Your task to perform on an android device: empty trash in the gmail app Image 0: 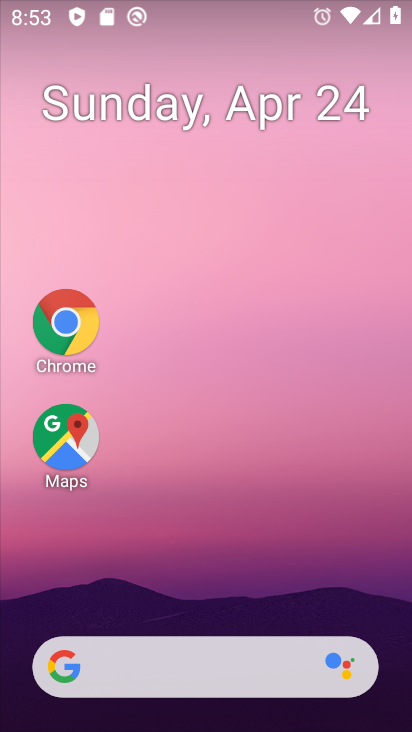
Step 0: drag from (226, 543) to (160, 44)
Your task to perform on an android device: empty trash in the gmail app Image 1: 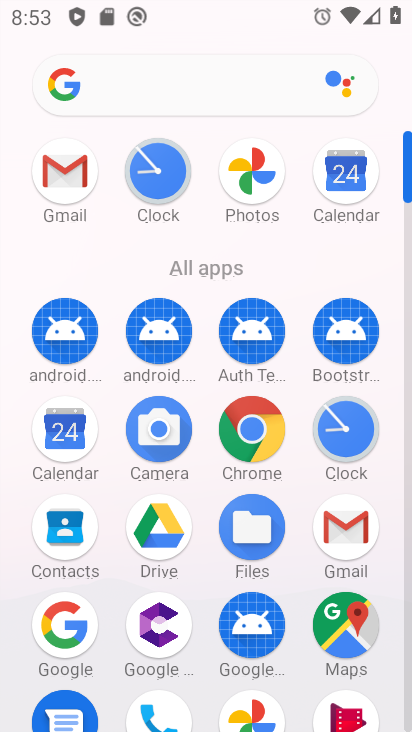
Step 1: click (340, 525)
Your task to perform on an android device: empty trash in the gmail app Image 2: 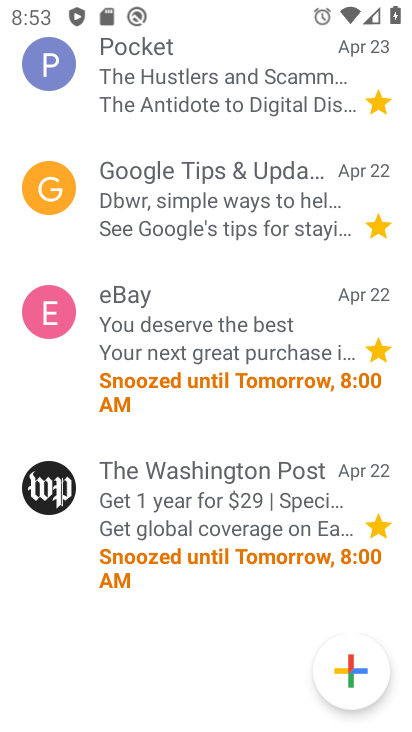
Step 2: drag from (120, 137) to (235, 685)
Your task to perform on an android device: empty trash in the gmail app Image 3: 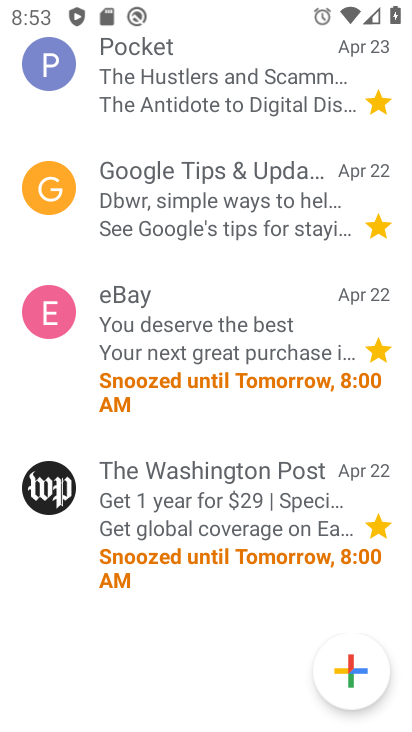
Step 3: drag from (220, 224) to (201, 576)
Your task to perform on an android device: empty trash in the gmail app Image 4: 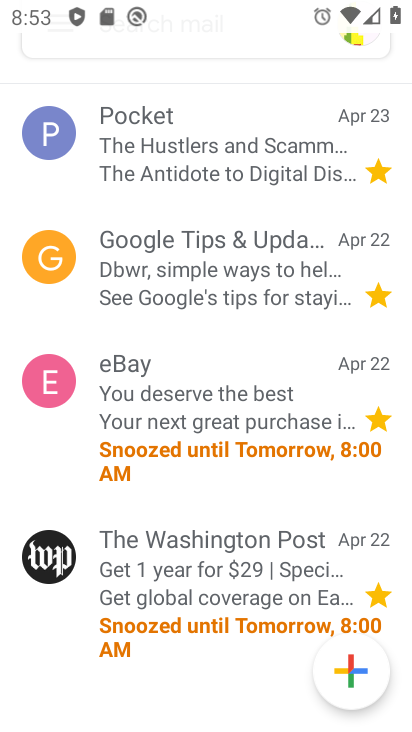
Step 4: drag from (238, 129) to (233, 314)
Your task to perform on an android device: empty trash in the gmail app Image 5: 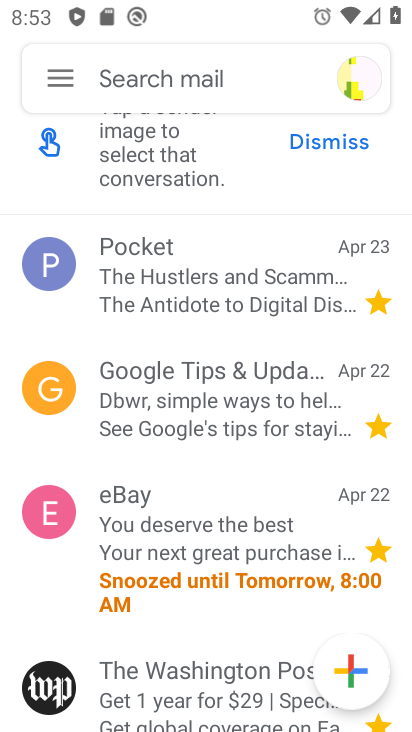
Step 5: click (53, 82)
Your task to perform on an android device: empty trash in the gmail app Image 6: 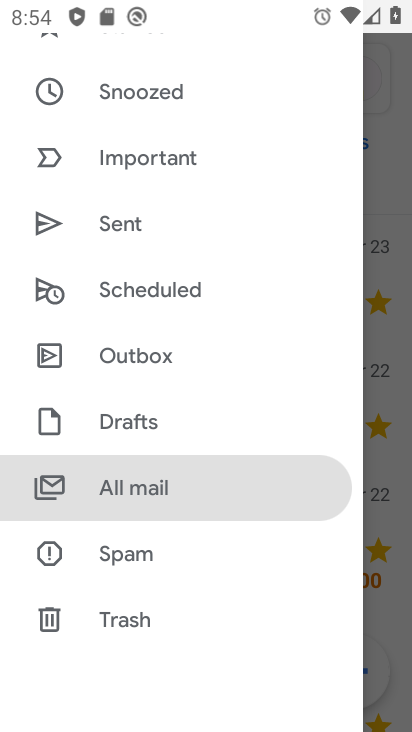
Step 6: click (115, 611)
Your task to perform on an android device: empty trash in the gmail app Image 7: 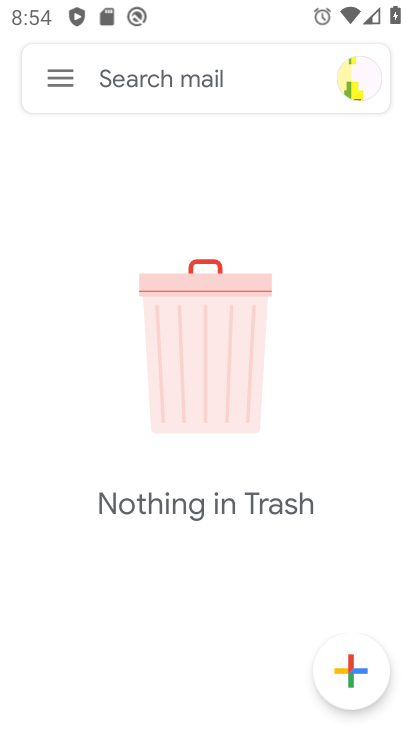
Step 7: task complete